Your task to perform on an android device: toggle sleep mode Image 0: 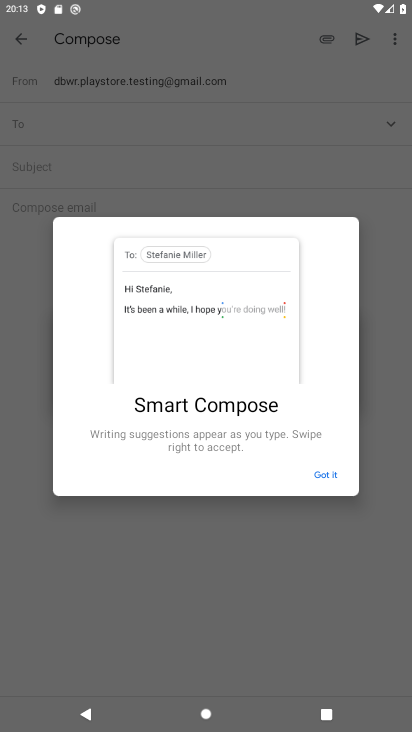
Step 0: press back button
Your task to perform on an android device: toggle sleep mode Image 1: 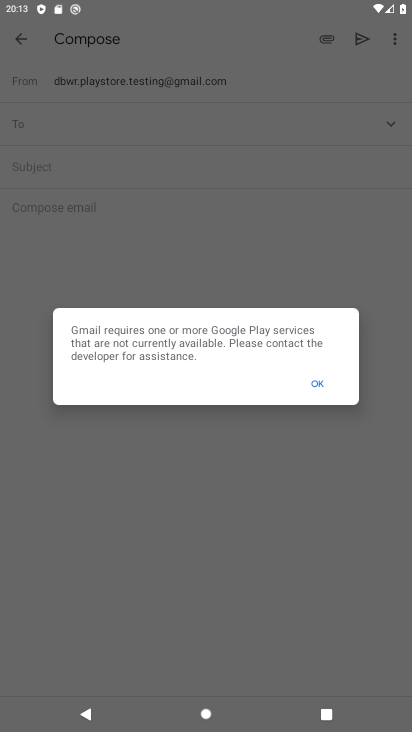
Step 1: press home button
Your task to perform on an android device: toggle sleep mode Image 2: 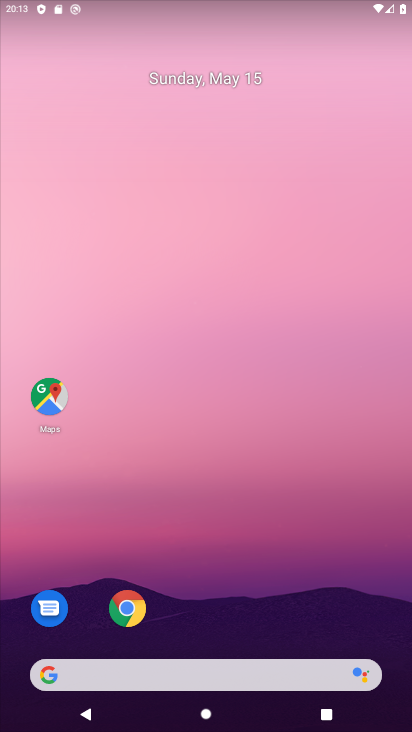
Step 2: drag from (230, 606) to (260, 58)
Your task to perform on an android device: toggle sleep mode Image 3: 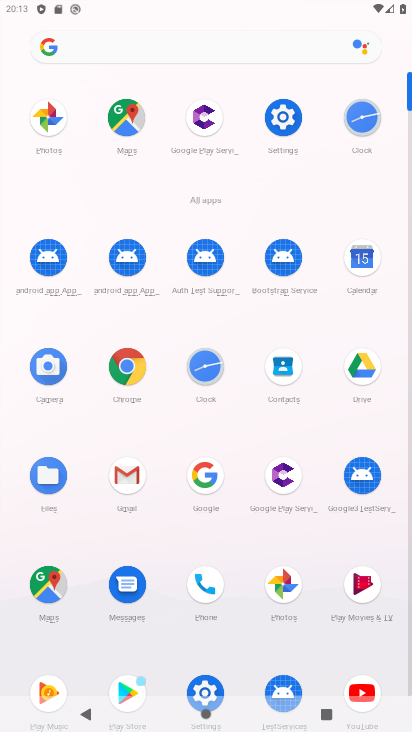
Step 3: click (283, 112)
Your task to perform on an android device: toggle sleep mode Image 4: 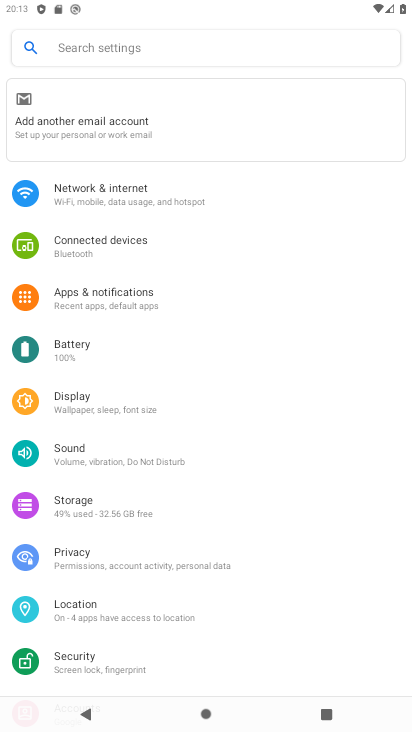
Step 4: click (88, 54)
Your task to perform on an android device: toggle sleep mode Image 5: 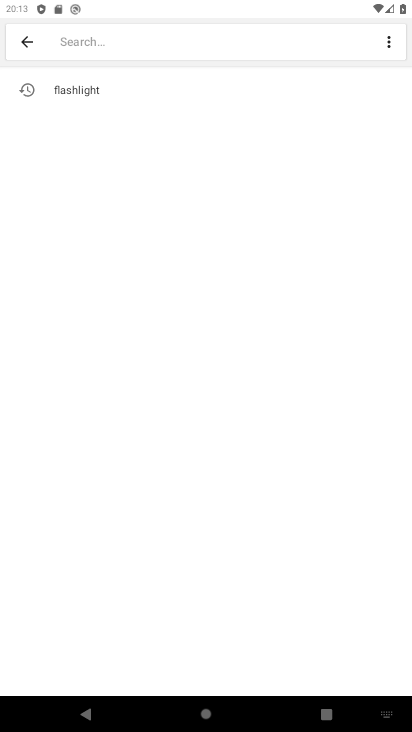
Step 5: type "sleep mode"
Your task to perform on an android device: toggle sleep mode Image 6: 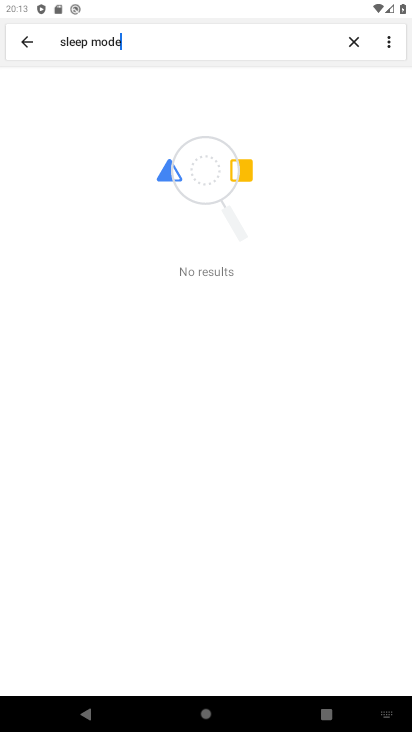
Step 6: task complete